Your task to perform on an android device: Do I have any events today? Image 0: 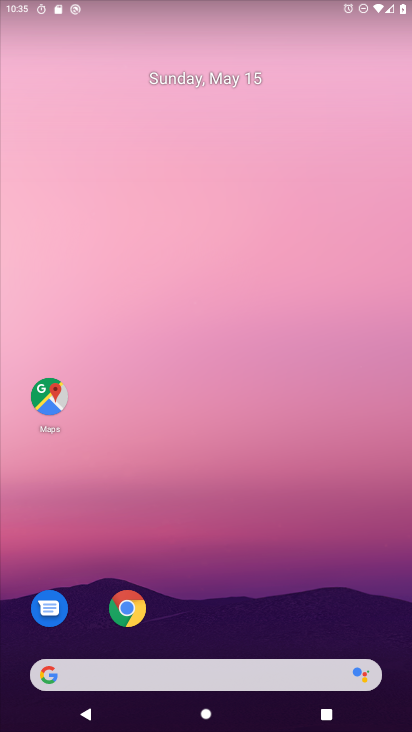
Step 0: drag from (337, 591) to (341, 203)
Your task to perform on an android device: Do I have any events today? Image 1: 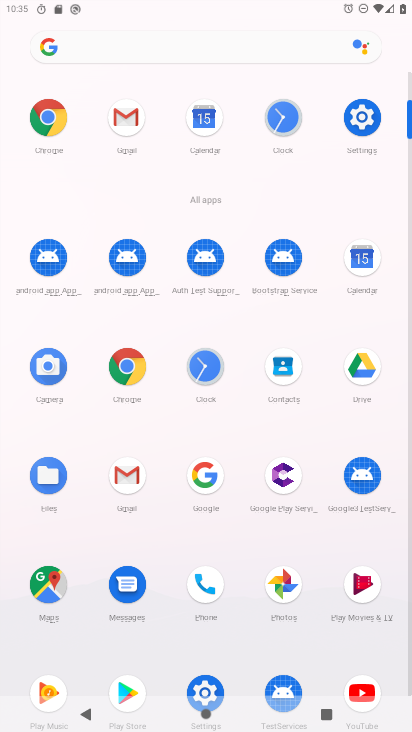
Step 1: click (141, 371)
Your task to perform on an android device: Do I have any events today? Image 2: 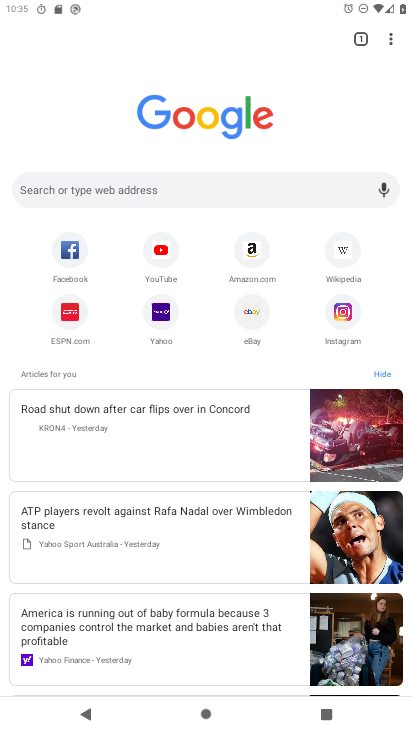
Step 2: click (47, 198)
Your task to perform on an android device: Do I have any events today? Image 3: 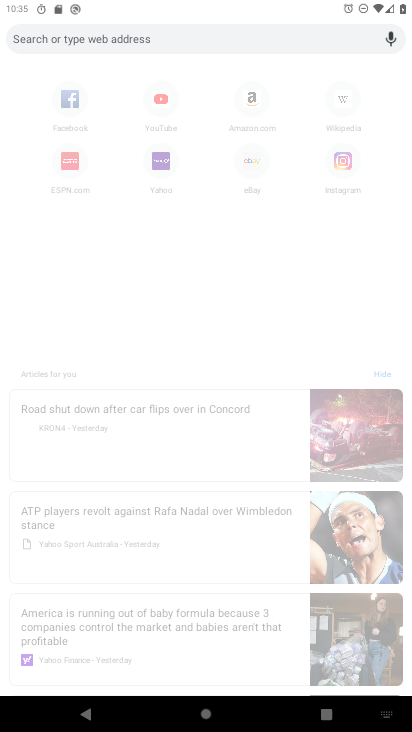
Step 3: type "do i have any events today"
Your task to perform on an android device: Do I have any events today? Image 4: 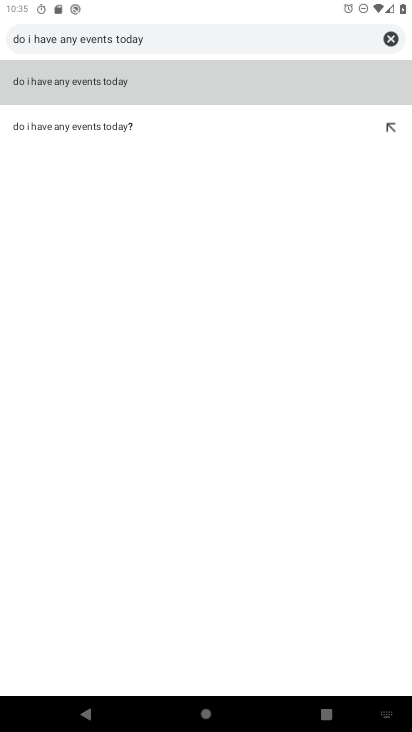
Step 4: click (79, 91)
Your task to perform on an android device: Do I have any events today? Image 5: 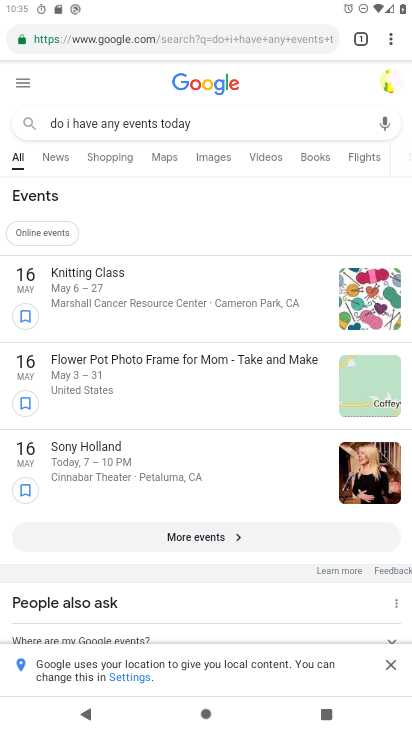
Step 5: task complete